Your task to perform on an android device: turn off airplane mode Image 0: 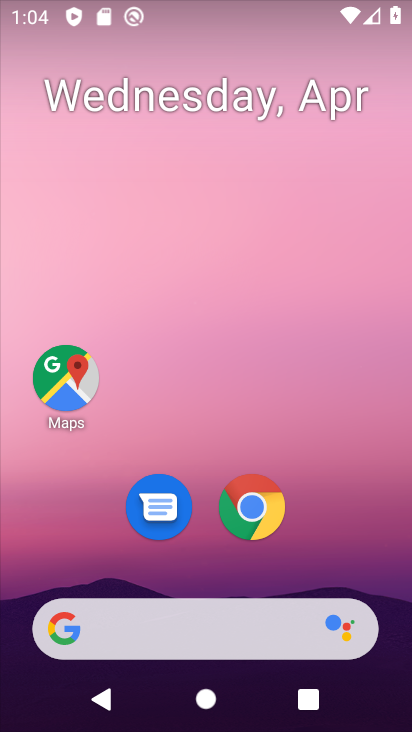
Step 0: drag from (192, 588) to (298, 110)
Your task to perform on an android device: turn off airplane mode Image 1: 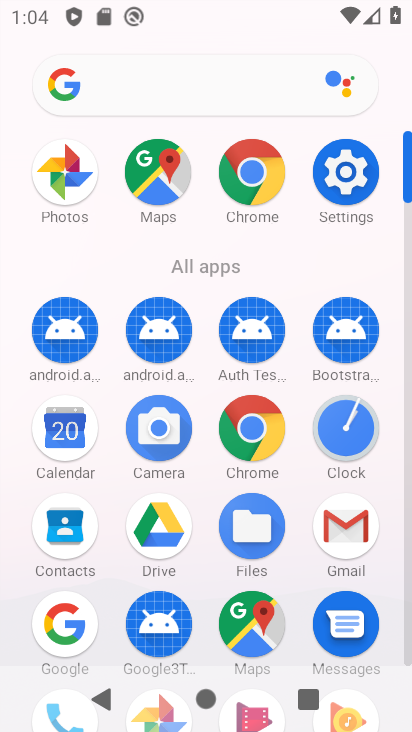
Step 1: click (340, 171)
Your task to perform on an android device: turn off airplane mode Image 2: 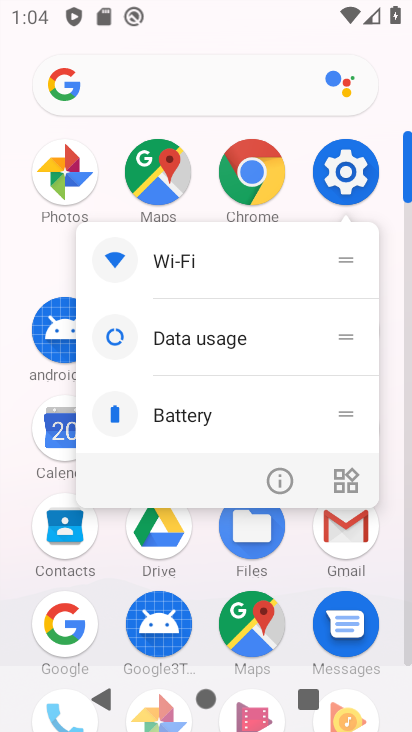
Step 2: click (346, 174)
Your task to perform on an android device: turn off airplane mode Image 3: 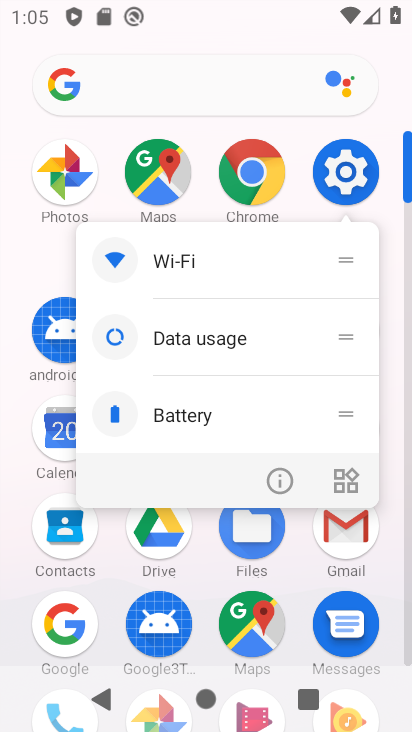
Step 3: click (350, 178)
Your task to perform on an android device: turn off airplane mode Image 4: 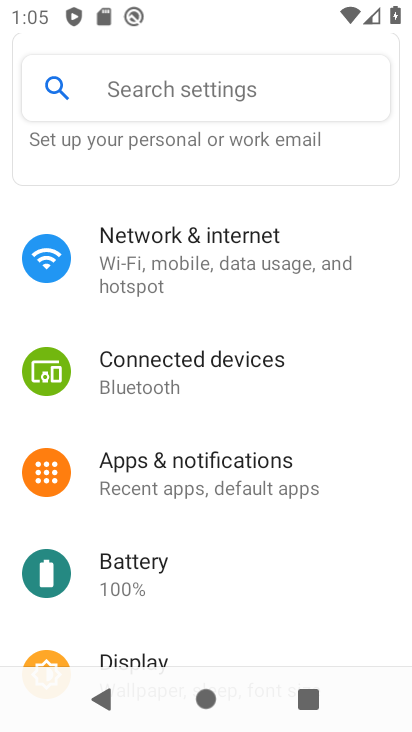
Step 4: click (342, 262)
Your task to perform on an android device: turn off airplane mode Image 5: 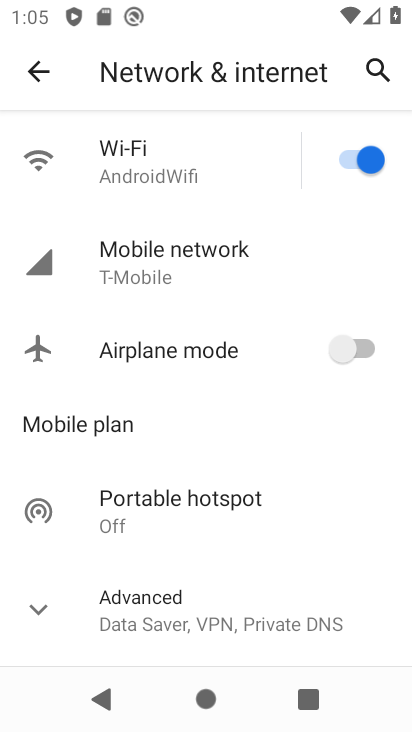
Step 5: task complete